Your task to perform on an android device: Go to wifi settings Image 0: 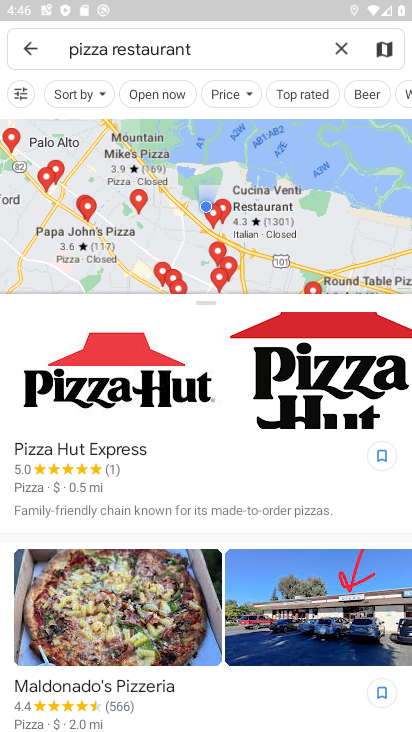
Step 0: drag from (142, 4) to (189, 586)
Your task to perform on an android device: Go to wifi settings Image 1: 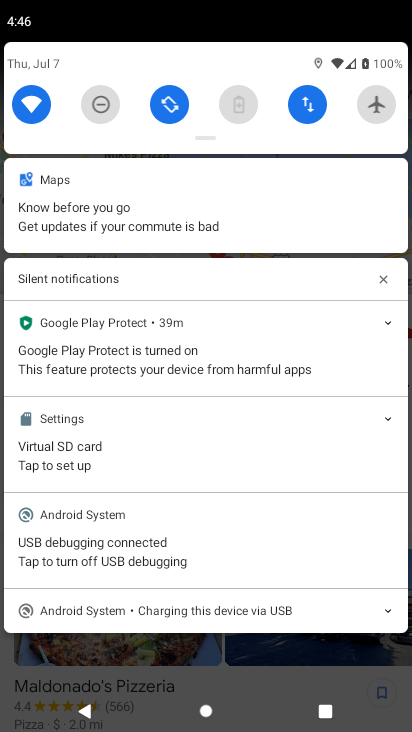
Step 1: click (30, 104)
Your task to perform on an android device: Go to wifi settings Image 2: 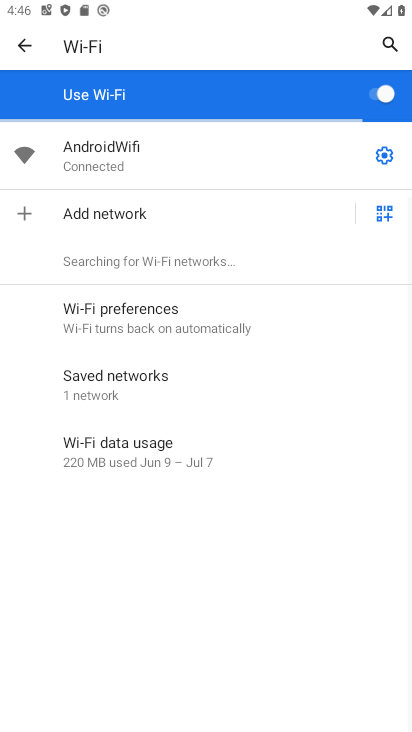
Step 2: task complete